Your task to perform on an android device: Open battery settings Image 0: 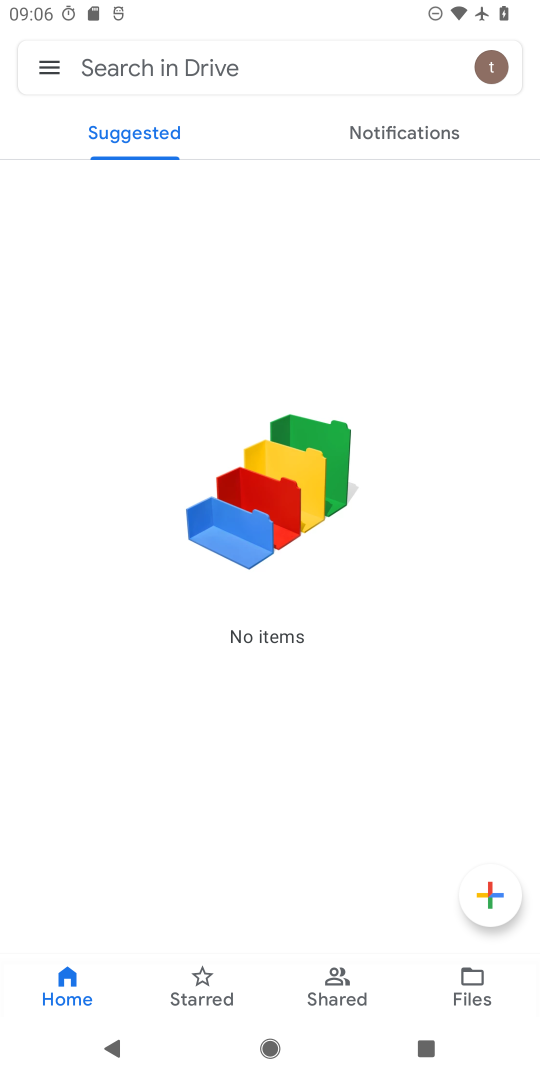
Step 0: press home button
Your task to perform on an android device: Open battery settings Image 1: 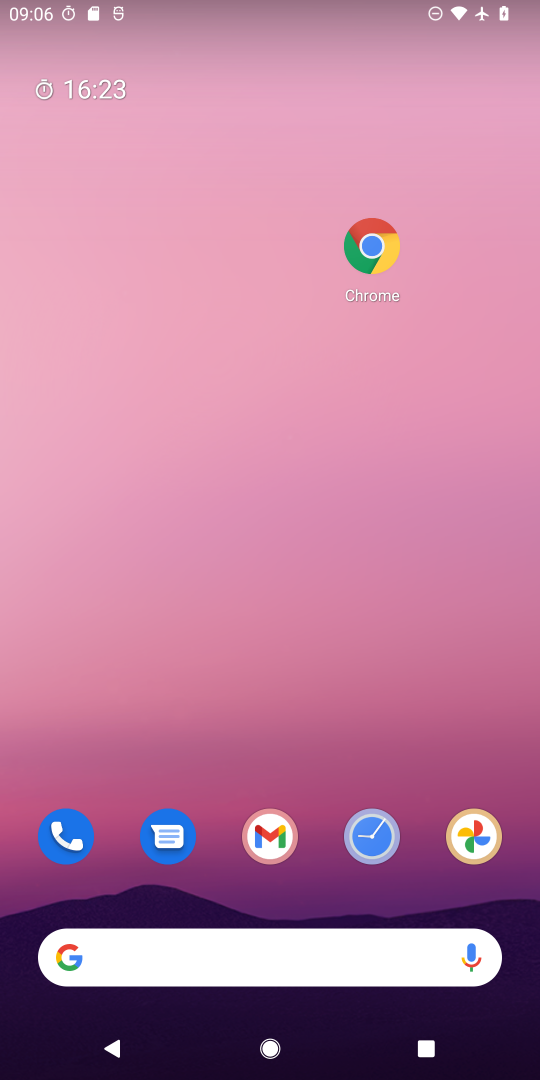
Step 1: drag from (429, 973) to (316, 349)
Your task to perform on an android device: Open battery settings Image 2: 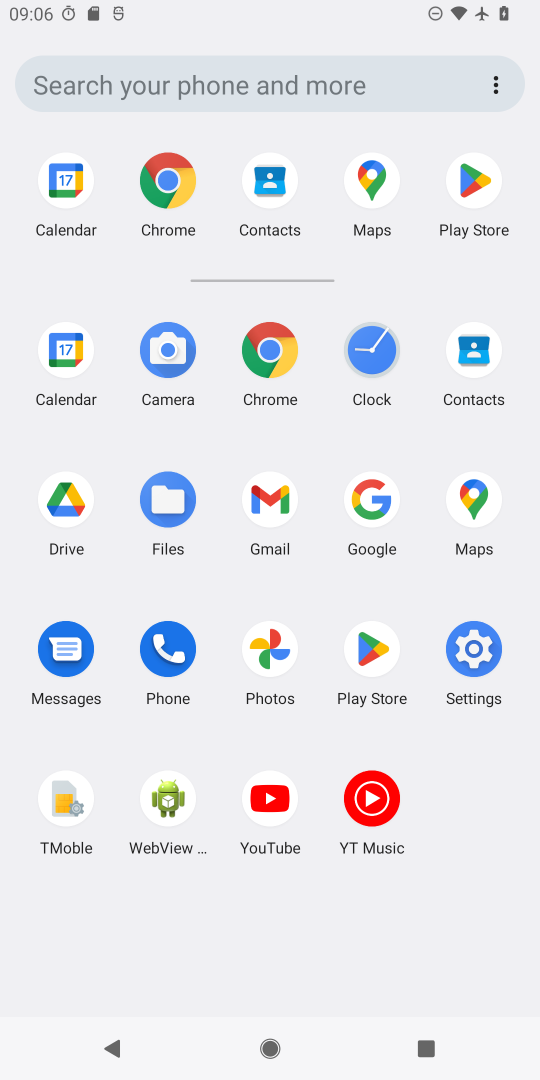
Step 2: click (481, 629)
Your task to perform on an android device: Open battery settings Image 3: 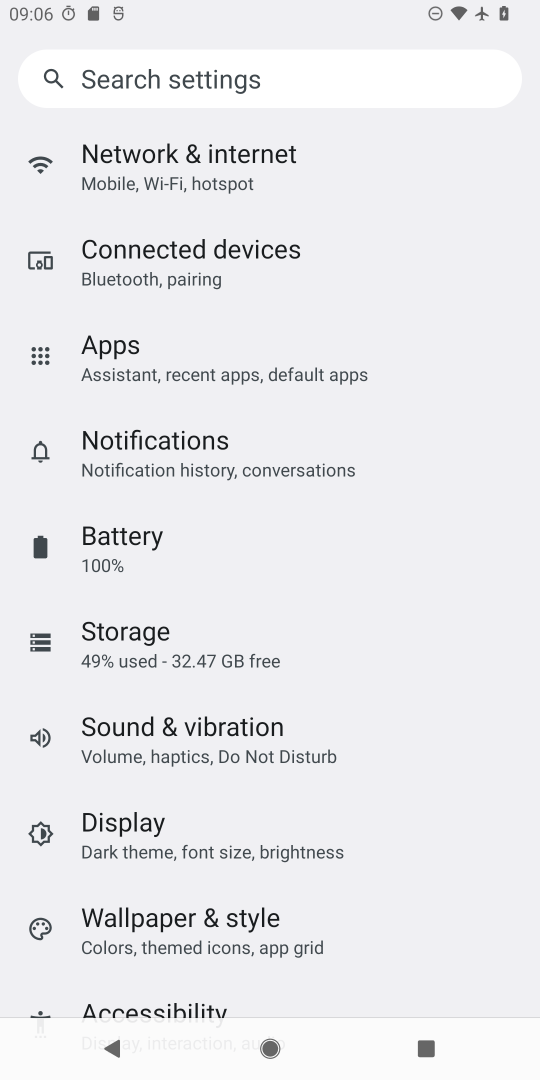
Step 3: click (96, 535)
Your task to perform on an android device: Open battery settings Image 4: 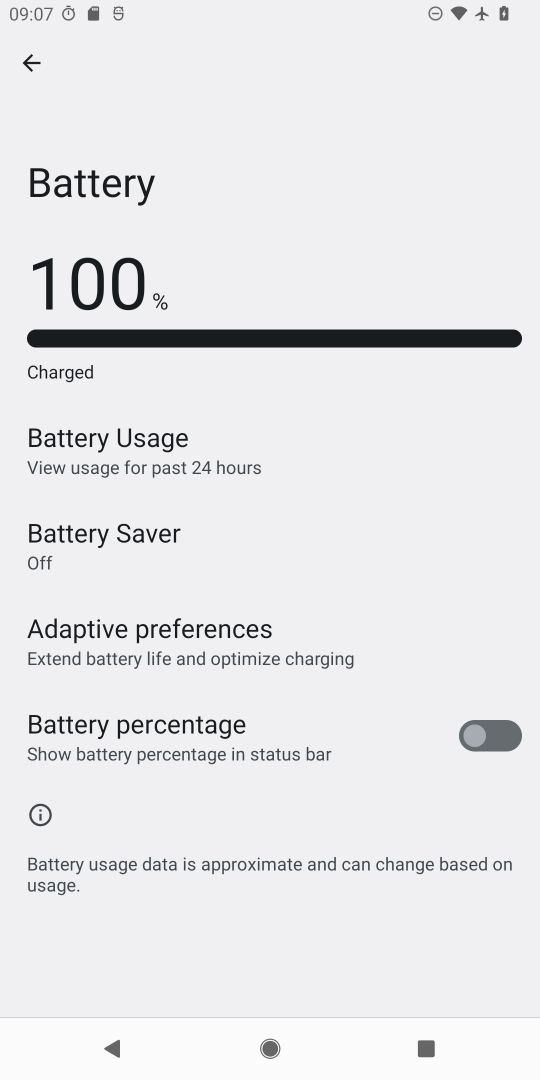
Step 4: task complete